Your task to perform on an android device: Open Google Maps and go to "Timeline" Image 0: 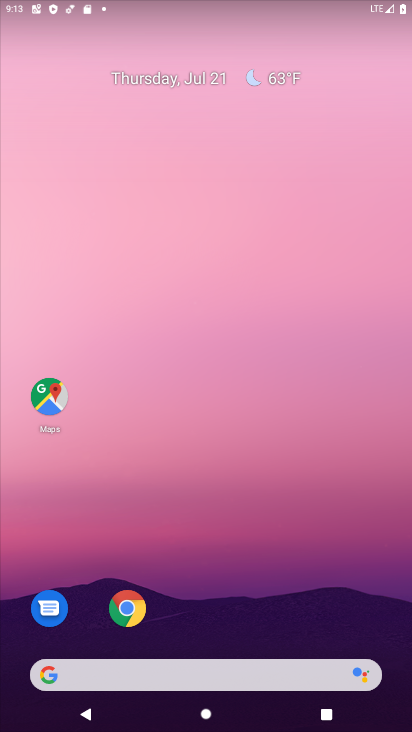
Step 0: drag from (237, 627) to (276, 0)
Your task to perform on an android device: Open Google Maps and go to "Timeline" Image 1: 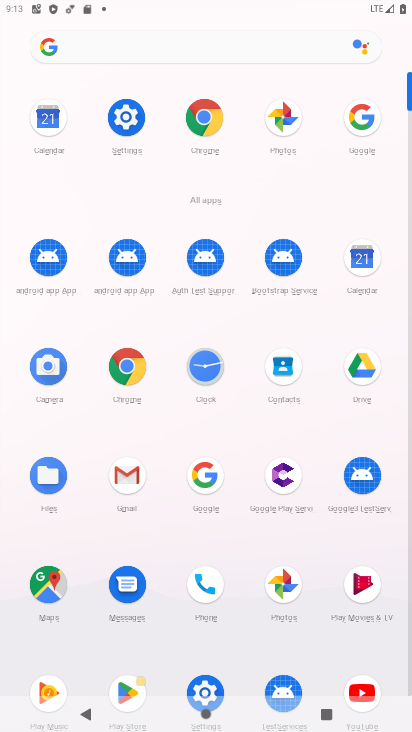
Step 1: click (52, 601)
Your task to perform on an android device: Open Google Maps and go to "Timeline" Image 2: 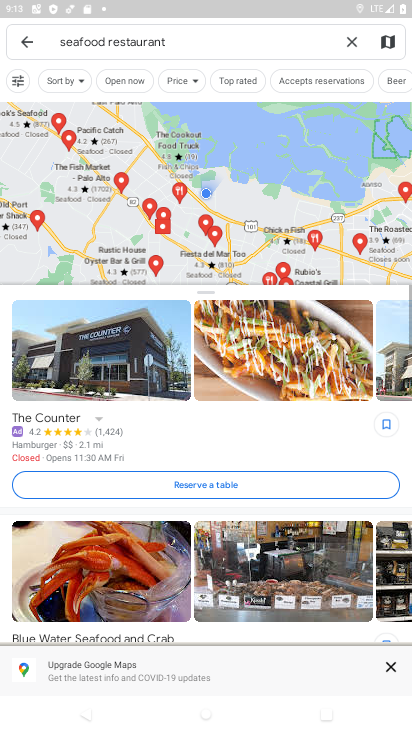
Step 2: click (36, 39)
Your task to perform on an android device: Open Google Maps and go to "Timeline" Image 3: 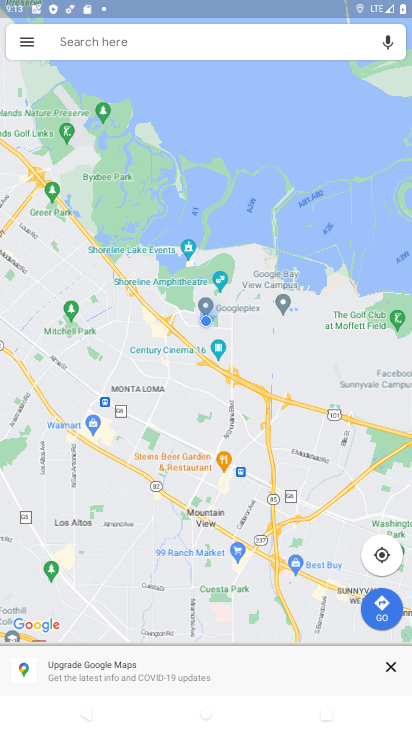
Step 3: click (26, 42)
Your task to perform on an android device: Open Google Maps and go to "Timeline" Image 4: 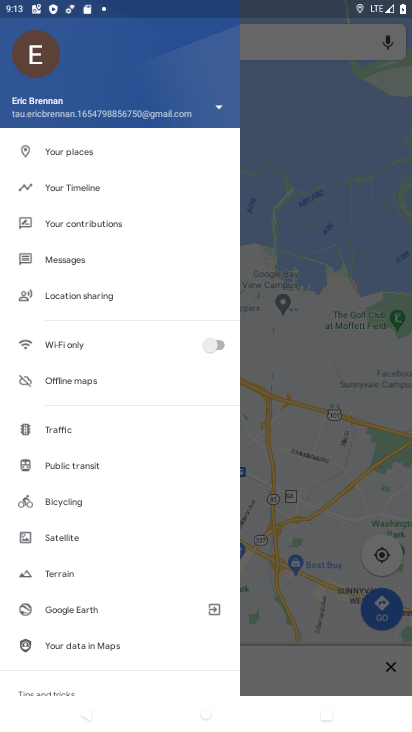
Step 4: click (36, 188)
Your task to perform on an android device: Open Google Maps and go to "Timeline" Image 5: 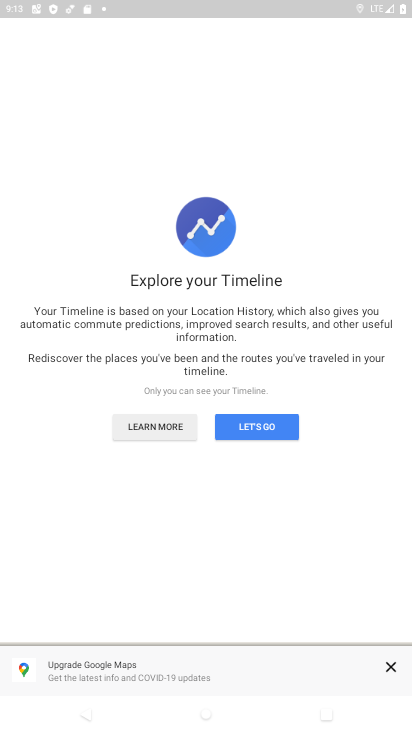
Step 5: click (257, 425)
Your task to perform on an android device: Open Google Maps and go to "Timeline" Image 6: 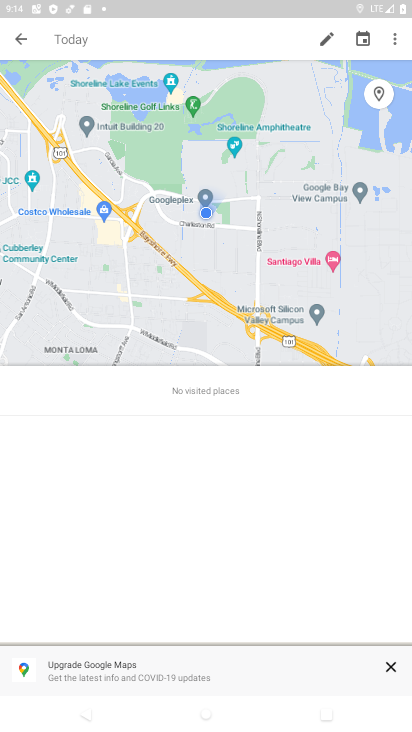
Step 6: task complete